Your task to perform on an android device: change the clock display to show seconds Image 0: 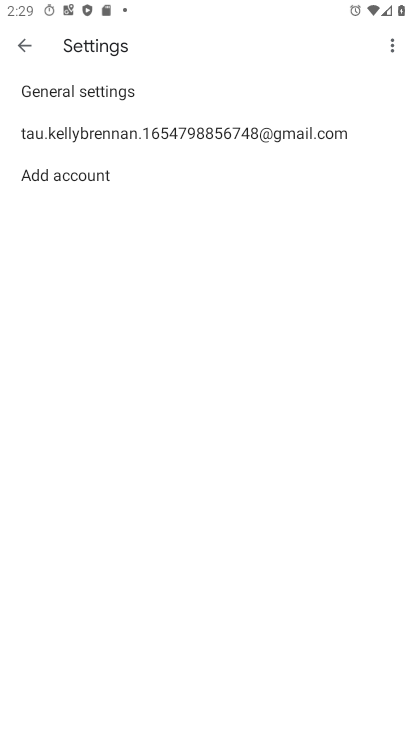
Step 0: press home button
Your task to perform on an android device: change the clock display to show seconds Image 1: 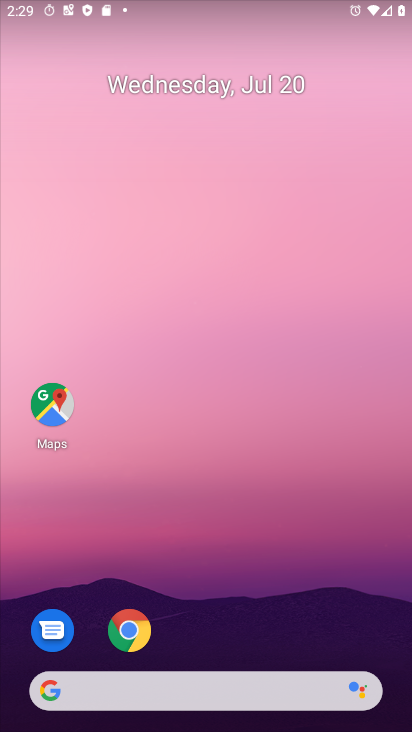
Step 1: drag from (165, 690) to (335, 27)
Your task to perform on an android device: change the clock display to show seconds Image 2: 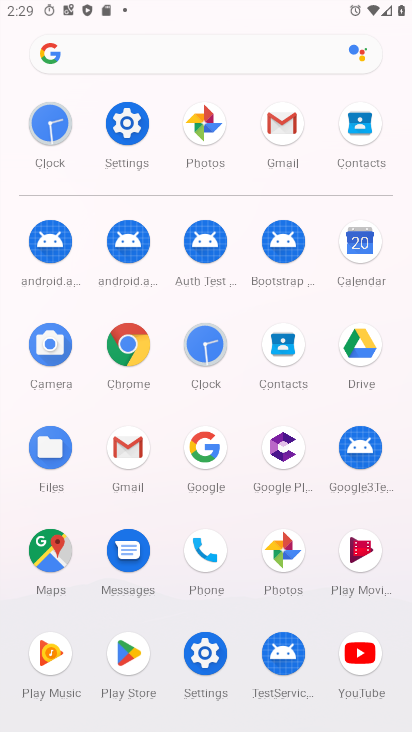
Step 2: click (50, 128)
Your task to perform on an android device: change the clock display to show seconds Image 3: 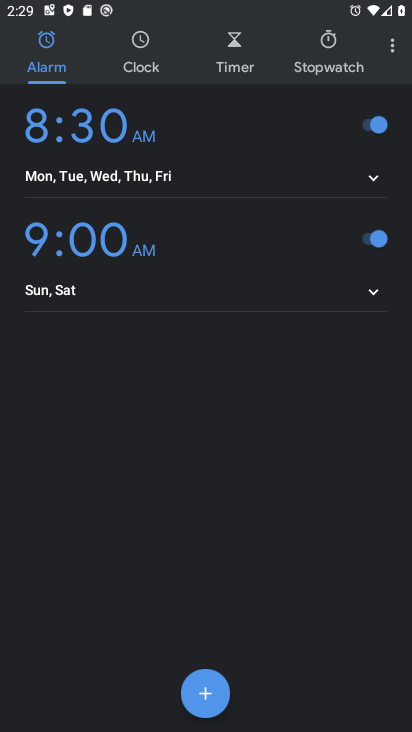
Step 3: click (386, 42)
Your task to perform on an android device: change the clock display to show seconds Image 4: 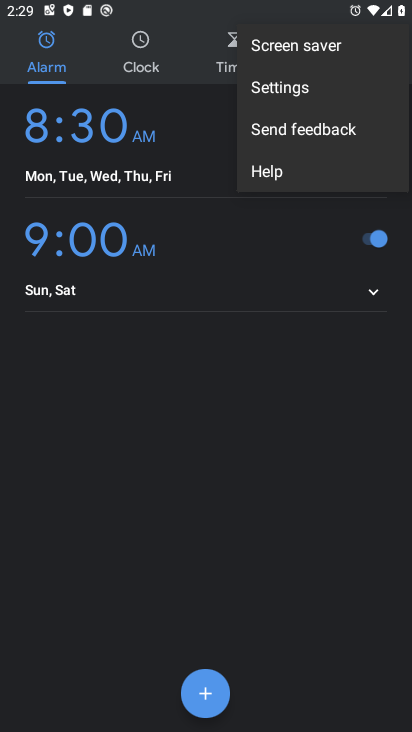
Step 4: click (275, 85)
Your task to perform on an android device: change the clock display to show seconds Image 5: 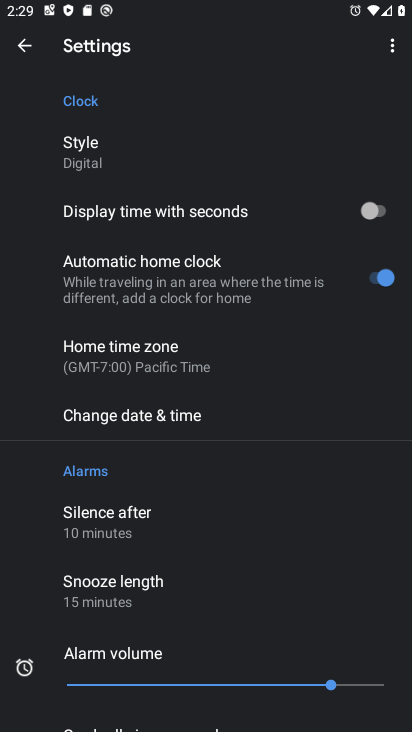
Step 5: click (386, 211)
Your task to perform on an android device: change the clock display to show seconds Image 6: 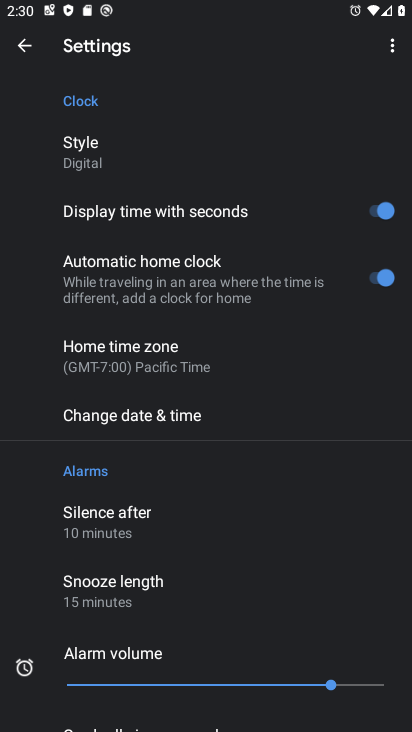
Step 6: task complete